Your task to perform on an android device: change the upload size in google photos Image 0: 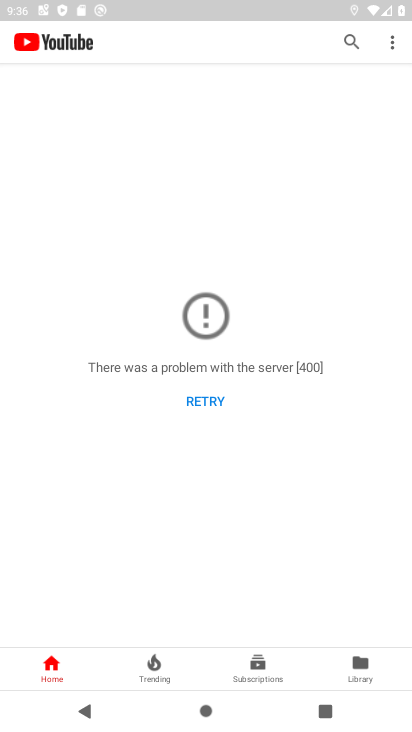
Step 0: press back button
Your task to perform on an android device: change the upload size in google photos Image 1: 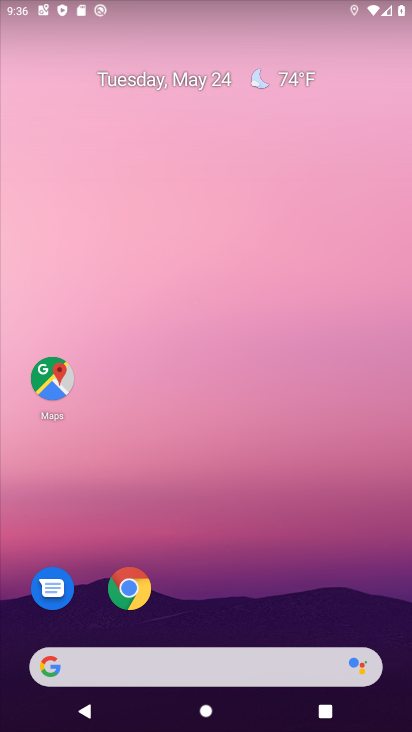
Step 1: drag from (216, 450) to (202, 51)
Your task to perform on an android device: change the upload size in google photos Image 2: 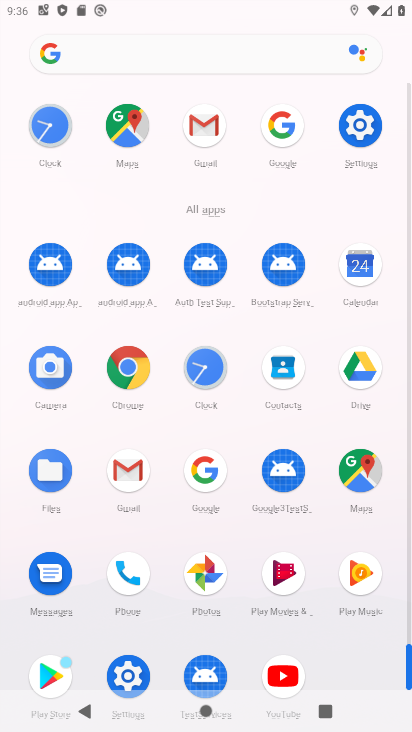
Step 2: drag from (2, 580) to (24, 256)
Your task to perform on an android device: change the upload size in google photos Image 3: 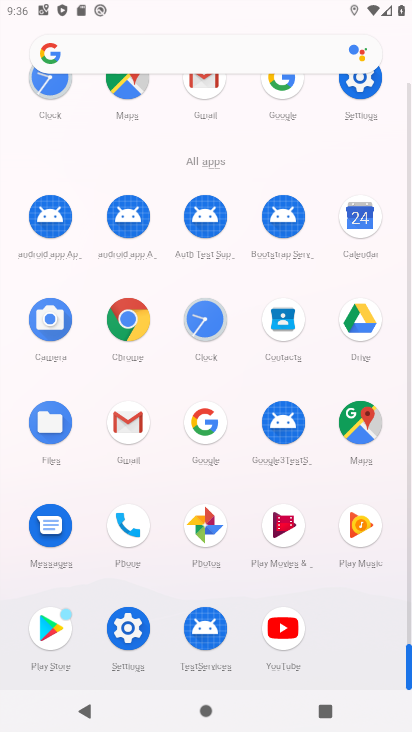
Step 3: click (204, 526)
Your task to perform on an android device: change the upload size in google photos Image 4: 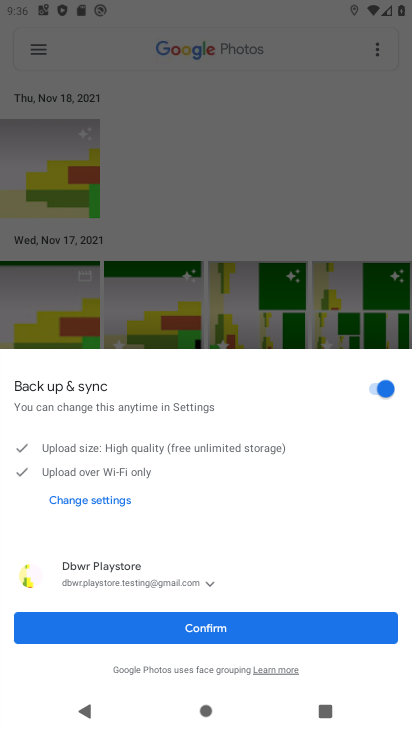
Step 4: click (253, 631)
Your task to perform on an android device: change the upload size in google photos Image 5: 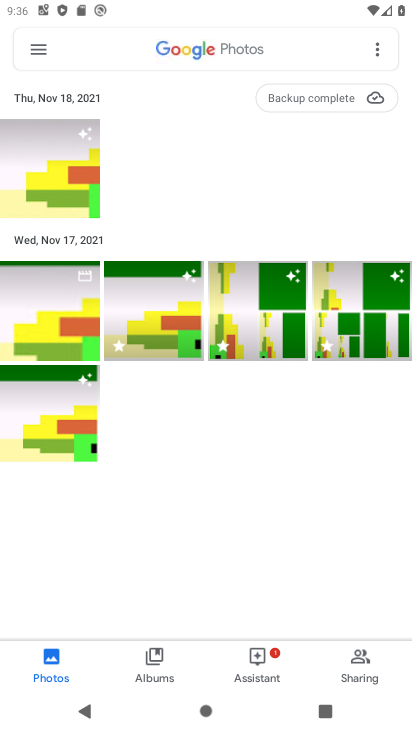
Step 5: click (371, 671)
Your task to perform on an android device: change the upload size in google photos Image 6: 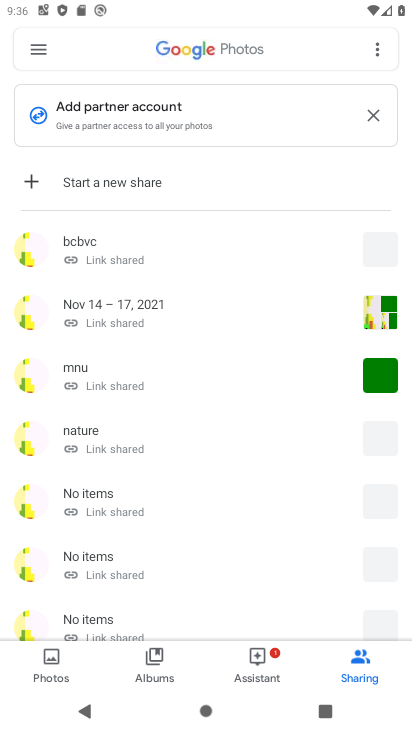
Step 6: click (39, 46)
Your task to perform on an android device: change the upload size in google photos Image 7: 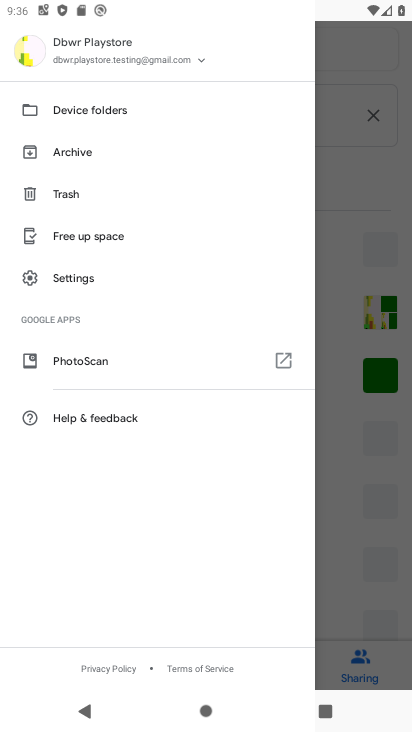
Step 7: click (77, 275)
Your task to perform on an android device: change the upload size in google photos Image 8: 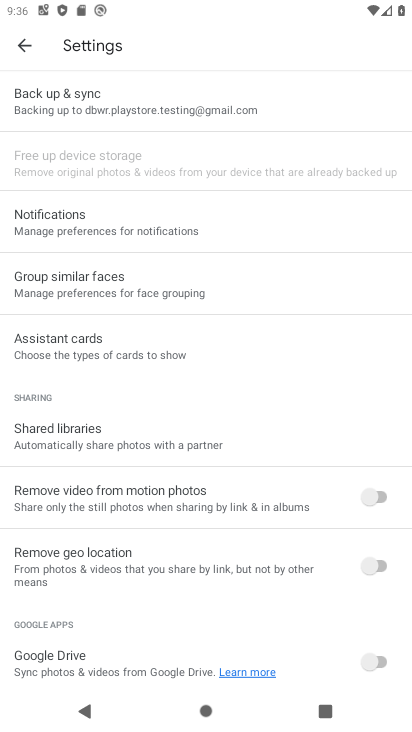
Step 8: click (164, 99)
Your task to perform on an android device: change the upload size in google photos Image 9: 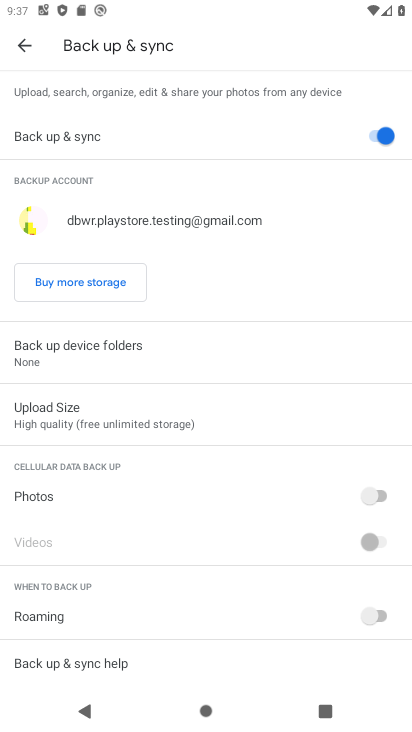
Step 9: click (155, 415)
Your task to perform on an android device: change the upload size in google photos Image 10: 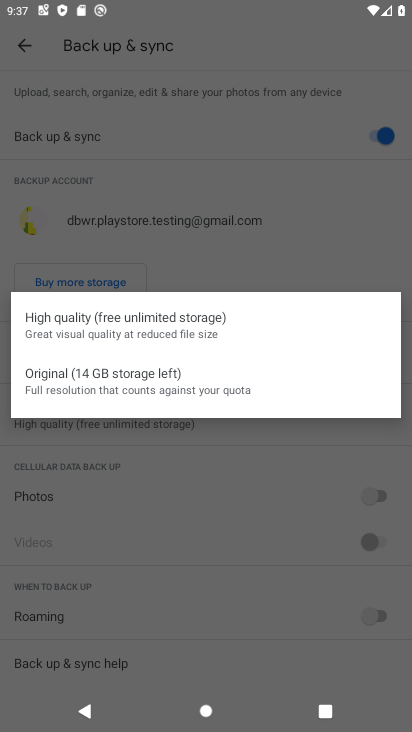
Step 10: click (138, 370)
Your task to perform on an android device: change the upload size in google photos Image 11: 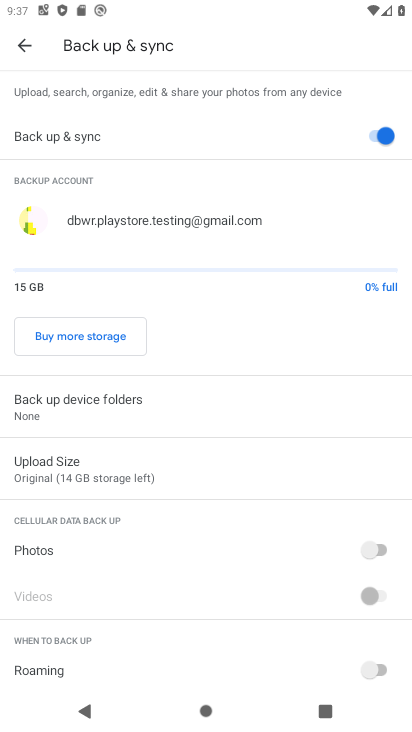
Step 11: task complete